Your task to perform on an android device: turn on bluetooth scan Image 0: 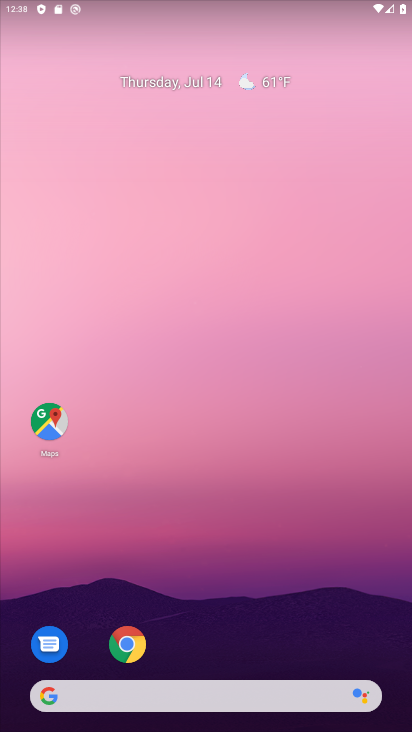
Step 0: click (143, 72)
Your task to perform on an android device: turn on bluetooth scan Image 1: 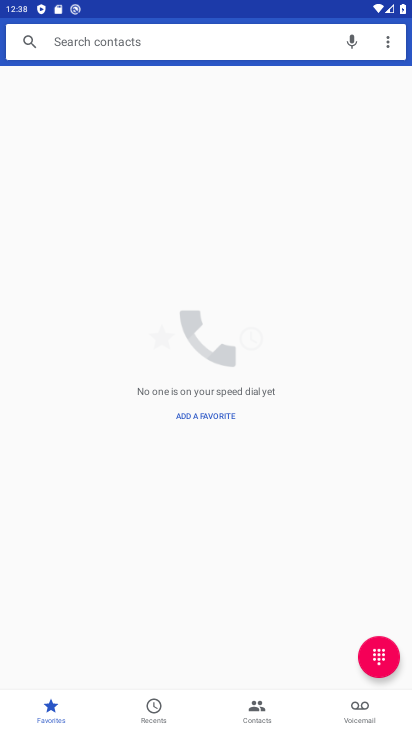
Step 1: press back button
Your task to perform on an android device: turn on bluetooth scan Image 2: 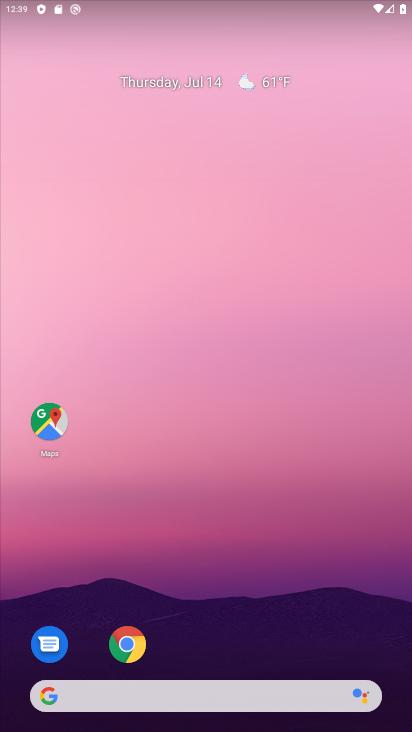
Step 2: click (153, 96)
Your task to perform on an android device: turn on bluetooth scan Image 3: 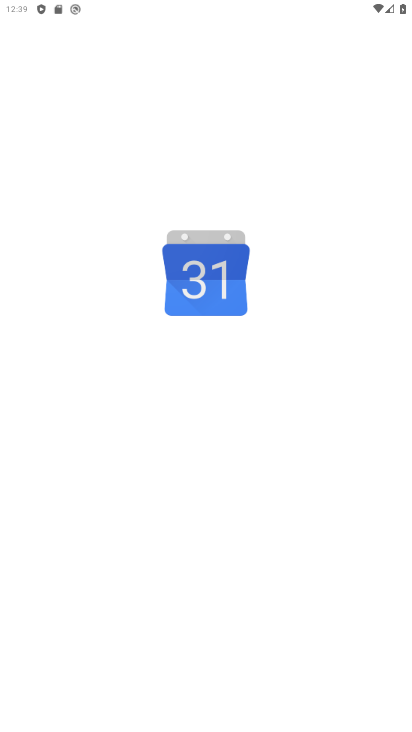
Step 3: click (97, 134)
Your task to perform on an android device: turn on bluetooth scan Image 4: 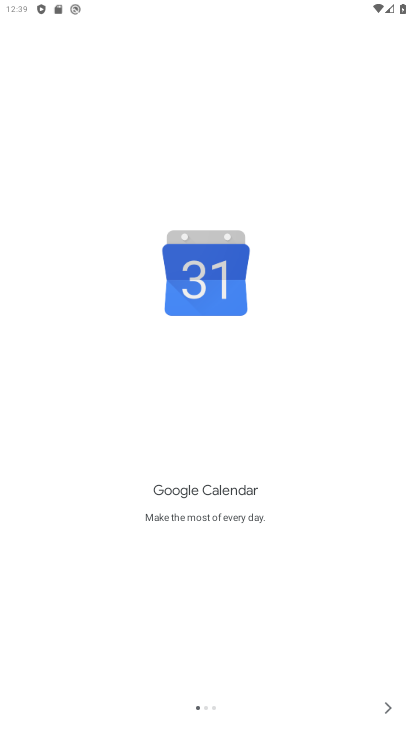
Step 4: click (75, 131)
Your task to perform on an android device: turn on bluetooth scan Image 5: 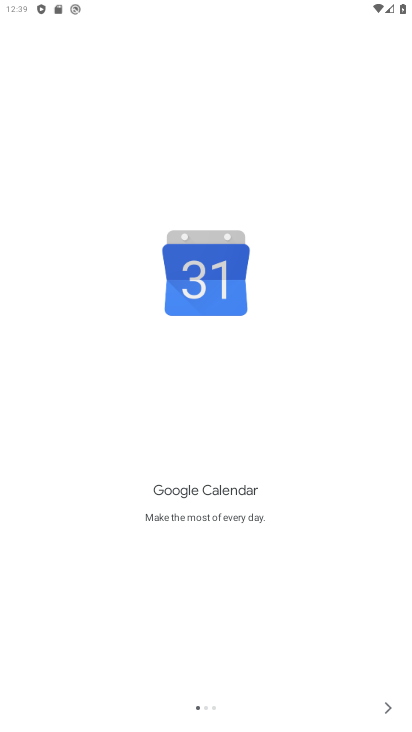
Step 5: drag from (163, 492) to (88, 92)
Your task to perform on an android device: turn on bluetooth scan Image 6: 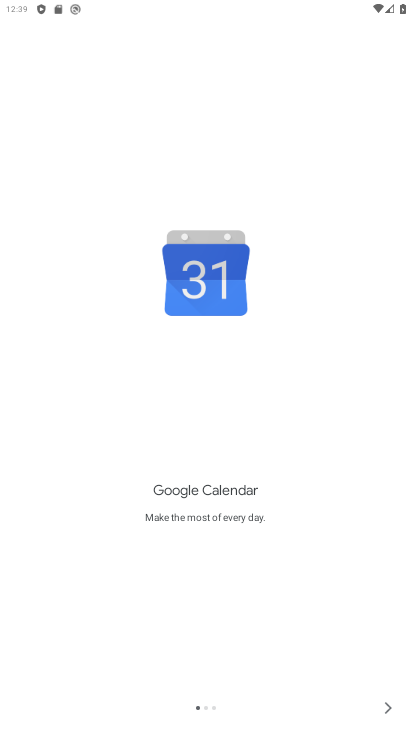
Step 6: drag from (206, 534) to (142, 216)
Your task to perform on an android device: turn on bluetooth scan Image 7: 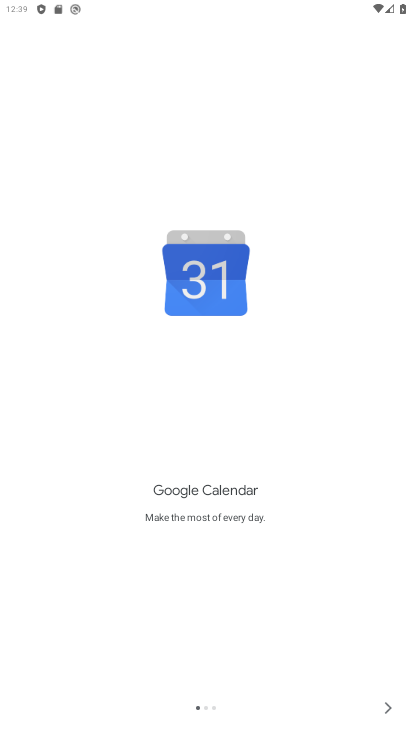
Step 7: drag from (246, 555) to (138, 129)
Your task to perform on an android device: turn on bluetooth scan Image 8: 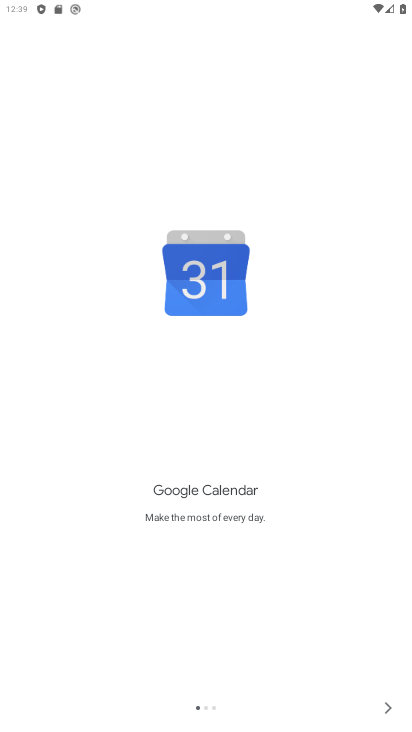
Step 8: drag from (171, 392) to (93, 65)
Your task to perform on an android device: turn on bluetooth scan Image 9: 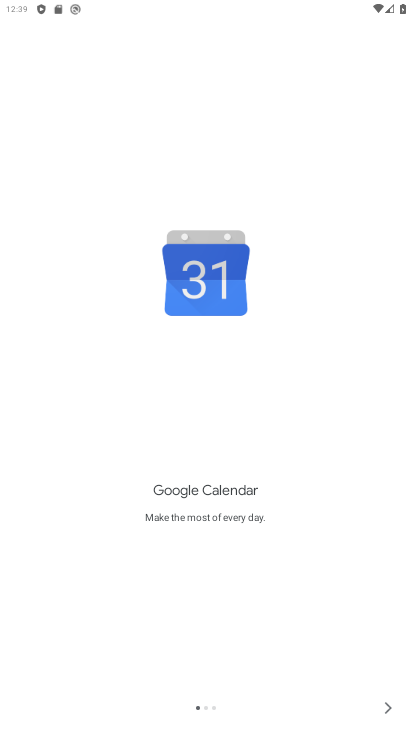
Step 9: drag from (189, 565) to (85, 67)
Your task to perform on an android device: turn on bluetooth scan Image 10: 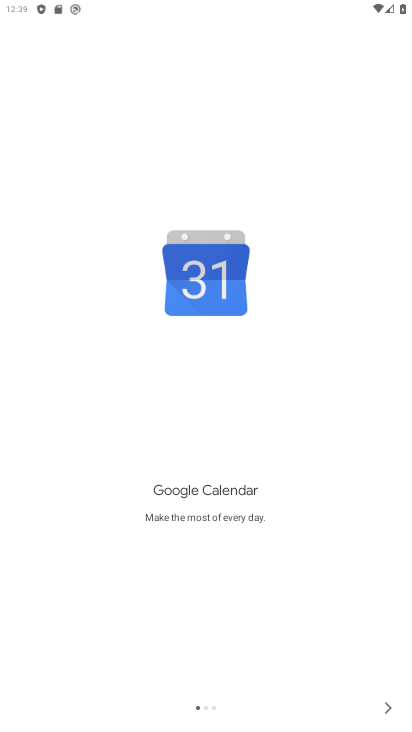
Step 10: drag from (233, 530) to (104, 40)
Your task to perform on an android device: turn on bluetooth scan Image 11: 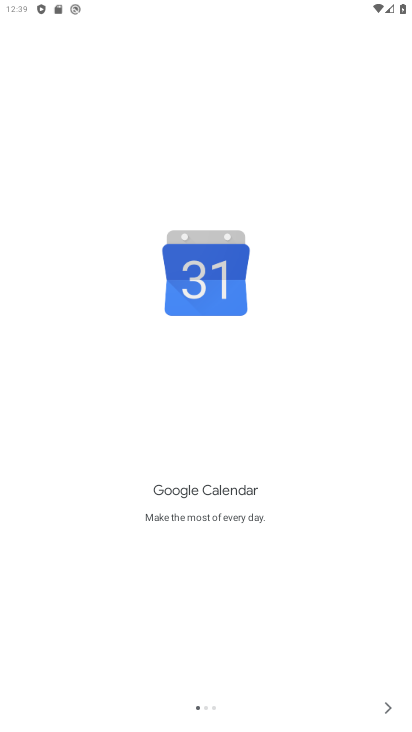
Step 11: press back button
Your task to perform on an android device: turn on bluetooth scan Image 12: 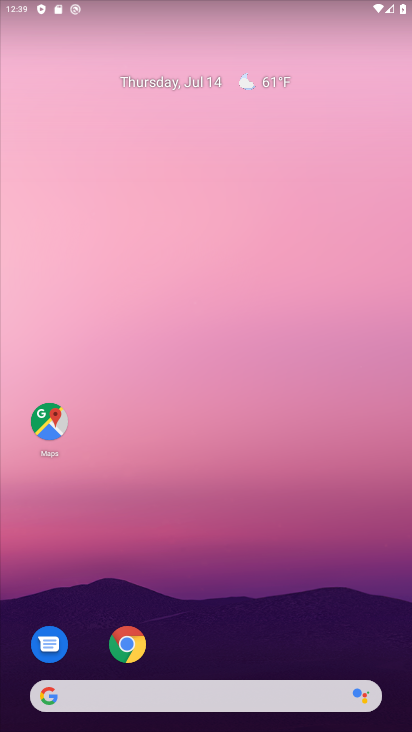
Step 12: press home button
Your task to perform on an android device: turn on bluetooth scan Image 13: 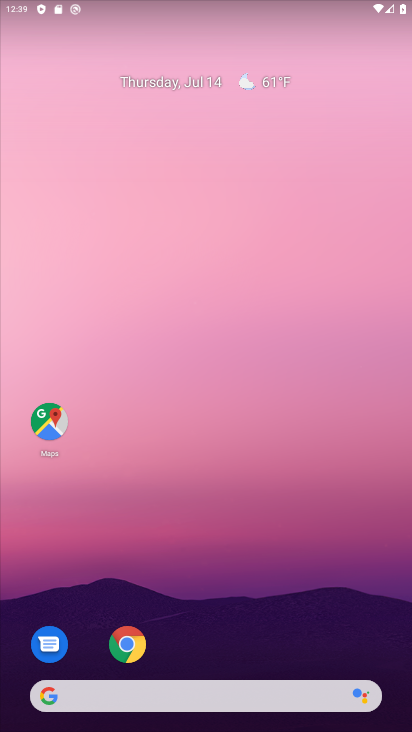
Step 13: drag from (170, 190) to (86, 10)
Your task to perform on an android device: turn on bluetooth scan Image 14: 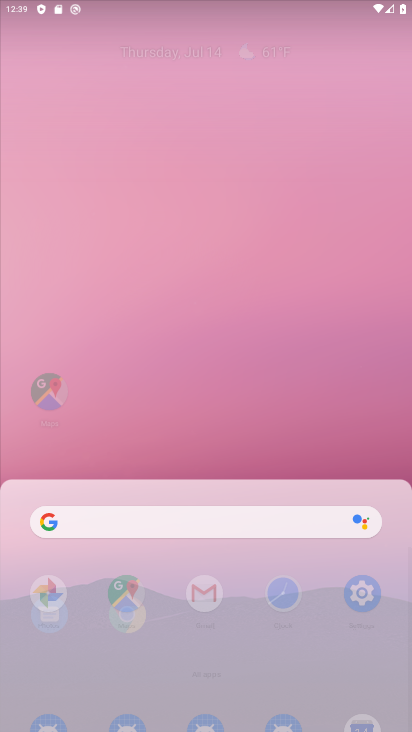
Step 14: drag from (227, 568) to (30, 34)
Your task to perform on an android device: turn on bluetooth scan Image 15: 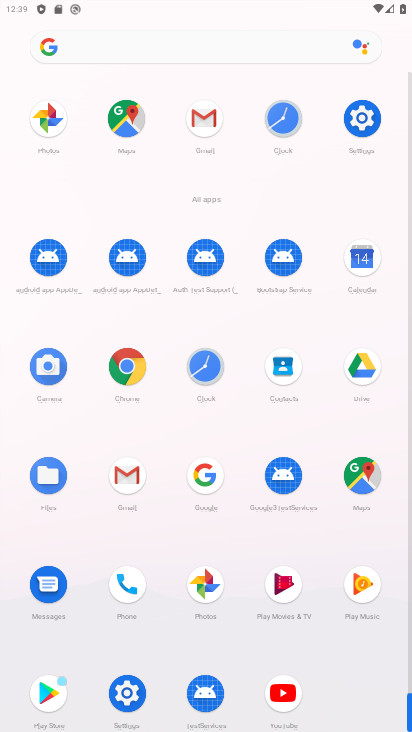
Step 15: click (362, 118)
Your task to perform on an android device: turn on bluetooth scan Image 16: 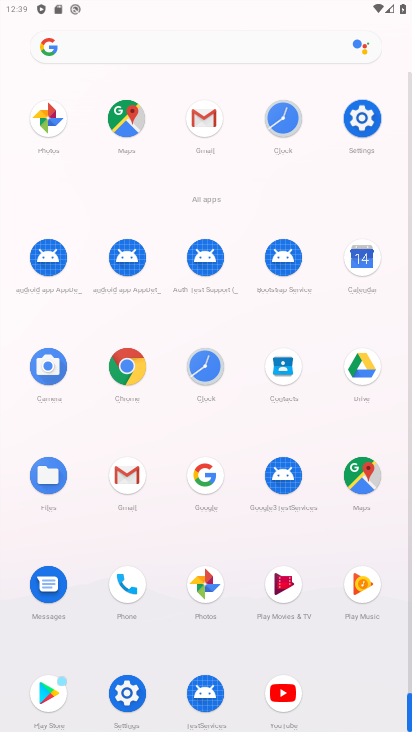
Step 16: click (352, 117)
Your task to perform on an android device: turn on bluetooth scan Image 17: 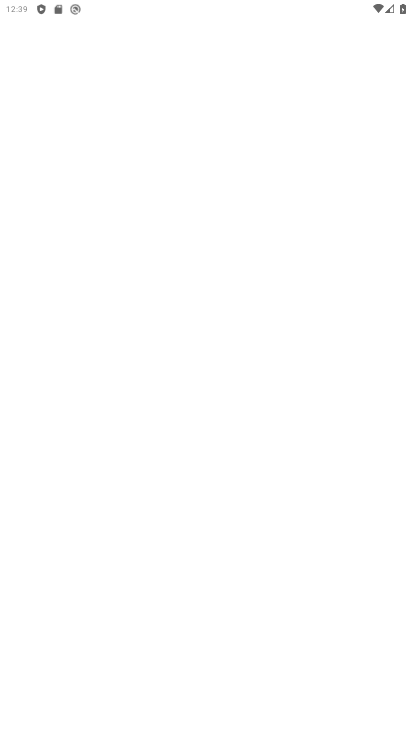
Step 17: click (353, 118)
Your task to perform on an android device: turn on bluetooth scan Image 18: 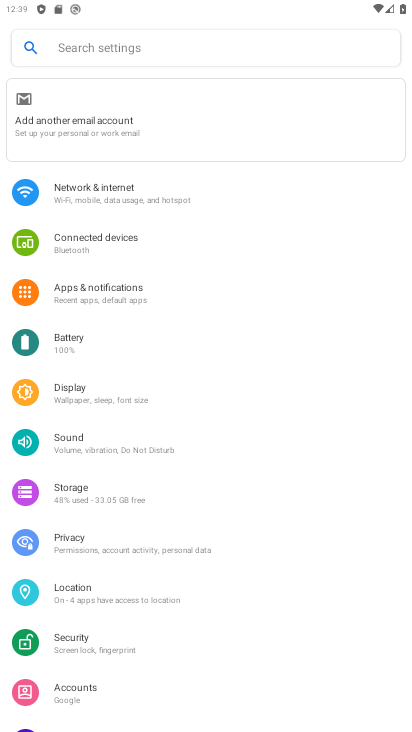
Step 18: click (77, 585)
Your task to perform on an android device: turn on bluetooth scan Image 19: 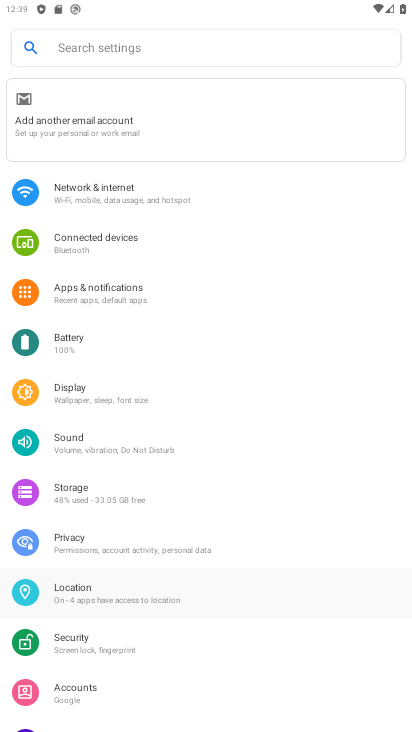
Step 19: click (75, 587)
Your task to perform on an android device: turn on bluetooth scan Image 20: 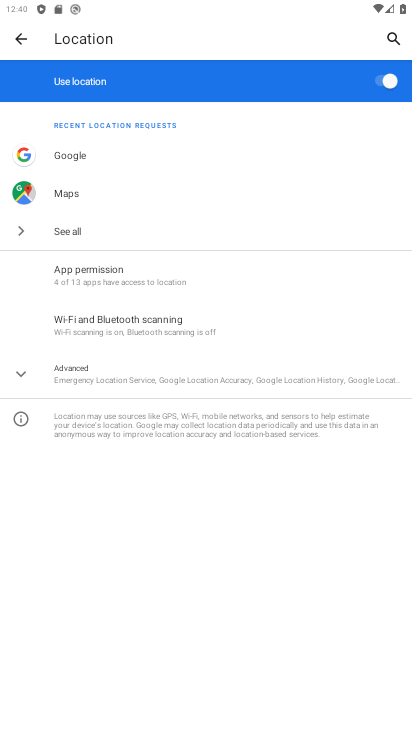
Step 20: click (112, 329)
Your task to perform on an android device: turn on bluetooth scan Image 21: 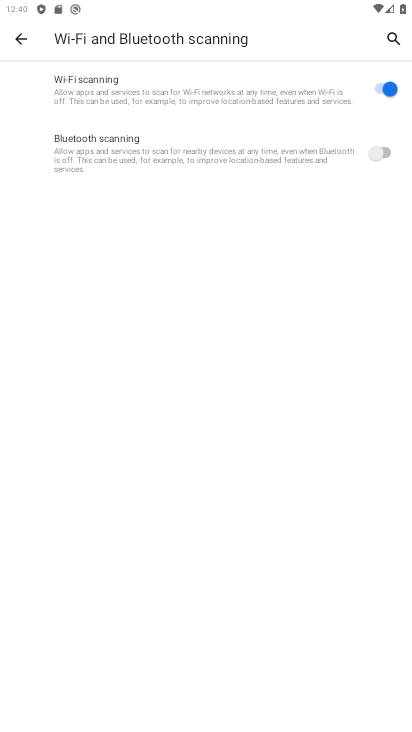
Step 21: click (379, 152)
Your task to perform on an android device: turn on bluetooth scan Image 22: 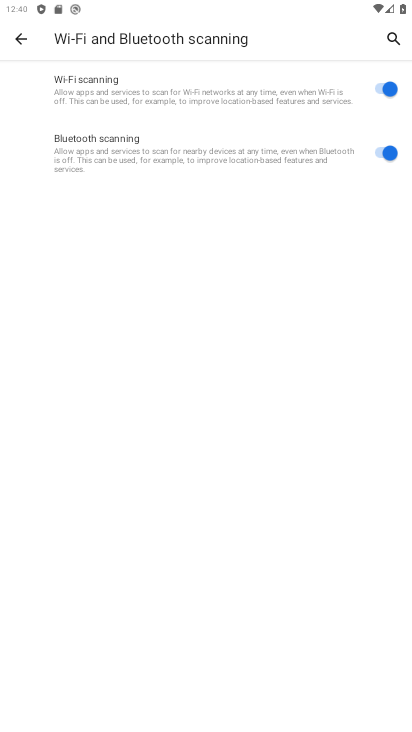
Step 22: click (362, 151)
Your task to perform on an android device: turn on bluetooth scan Image 23: 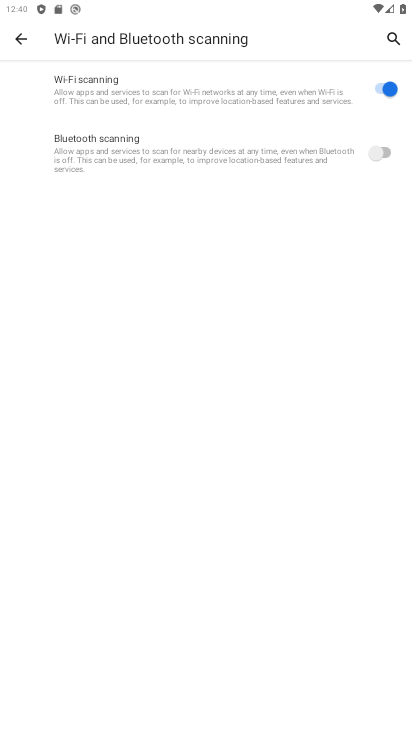
Step 23: click (373, 155)
Your task to perform on an android device: turn on bluetooth scan Image 24: 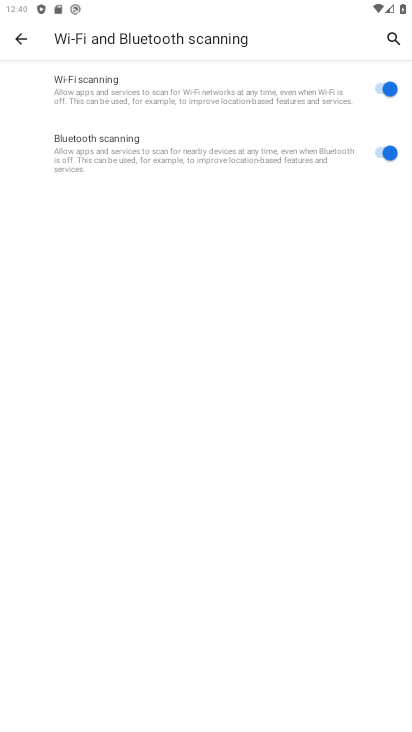
Step 24: task complete